Your task to perform on an android device: Check the news Image 0: 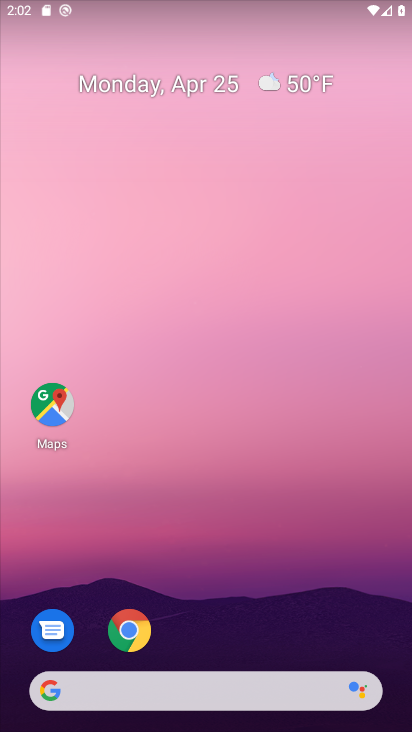
Step 0: click (177, 691)
Your task to perform on an android device: Check the news Image 1: 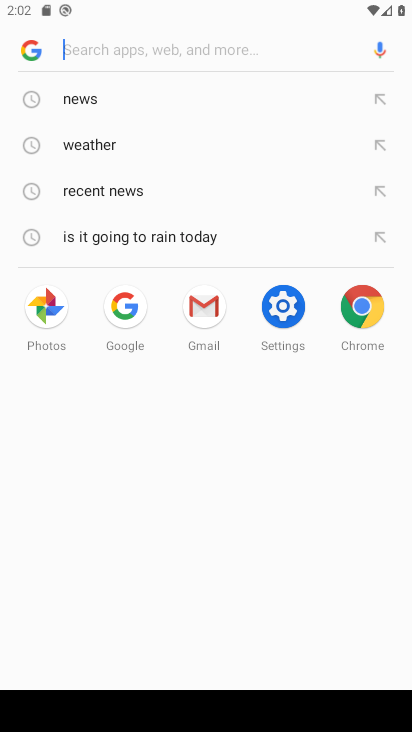
Step 1: click (19, 42)
Your task to perform on an android device: Check the news Image 2: 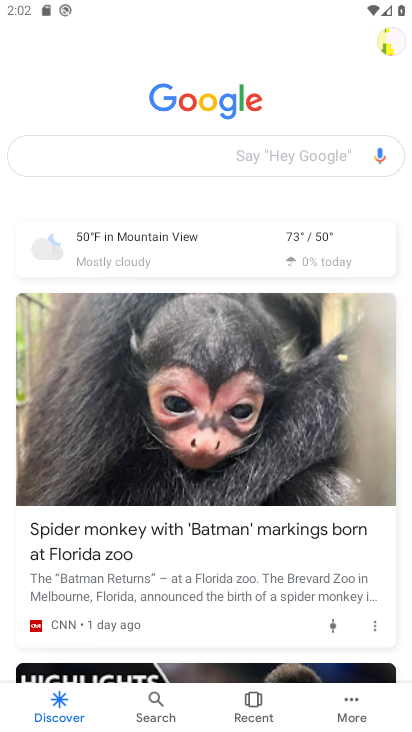
Step 2: drag from (204, 568) to (220, 80)
Your task to perform on an android device: Check the news Image 3: 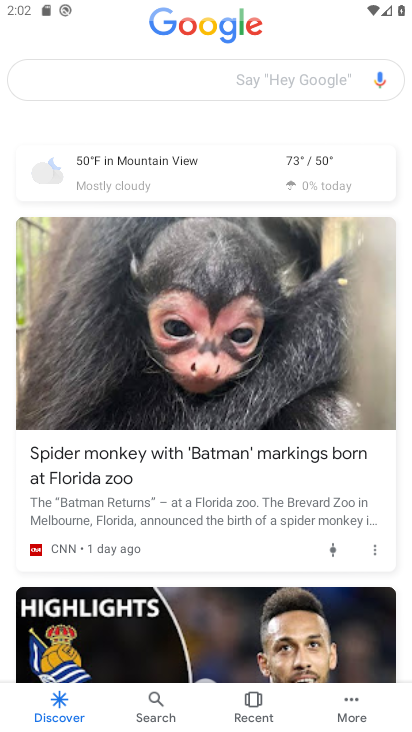
Step 3: drag from (155, 573) to (259, 108)
Your task to perform on an android device: Check the news Image 4: 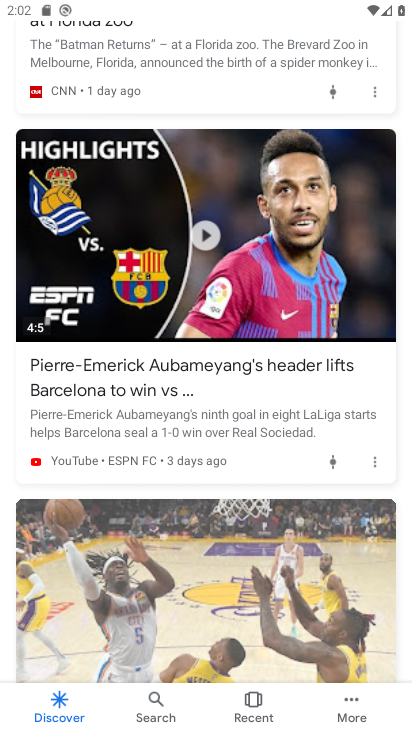
Step 4: click (259, 108)
Your task to perform on an android device: Check the news Image 5: 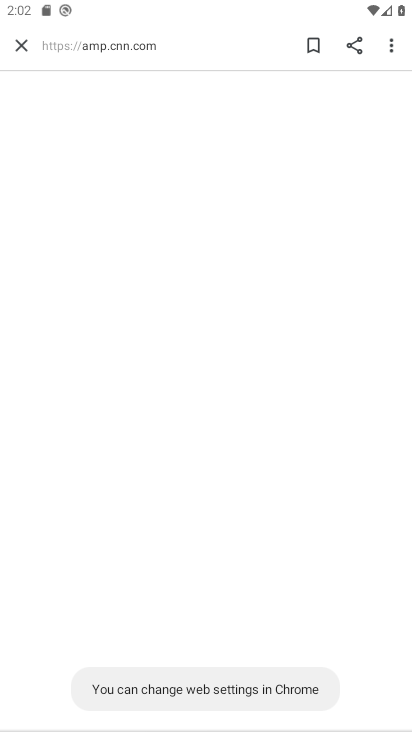
Step 5: task complete